Your task to perform on an android device: turn on javascript in the chrome app Image 0: 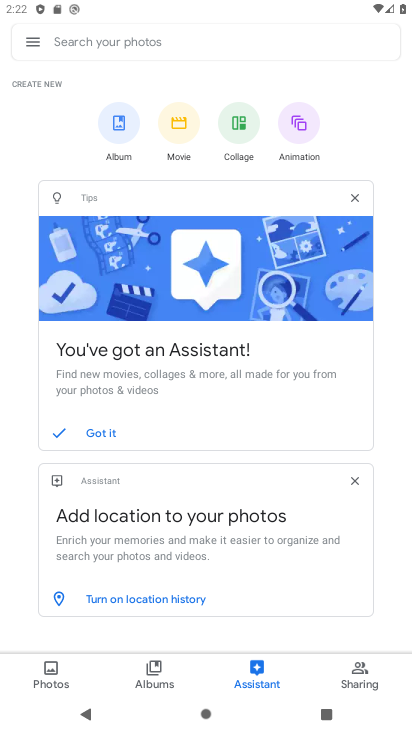
Step 0: press home button
Your task to perform on an android device: turn on javascript in the chrome app Image 1: 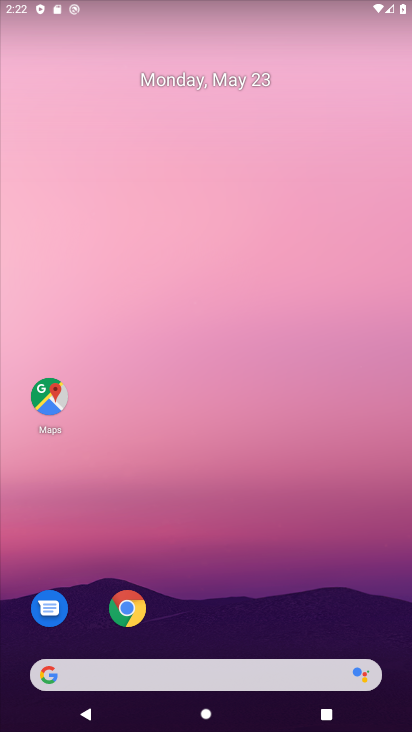
Step 1: click (125, 607)
Your task to perform on an android device: turn on javascript in the chrome app Image 2: 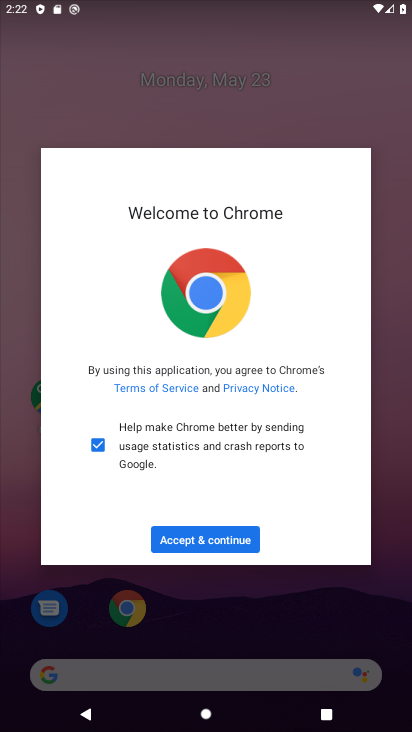
Step 2: click (224, 543)
Your task to perform on an android device: turn on javascript in the chrome app Image 3: 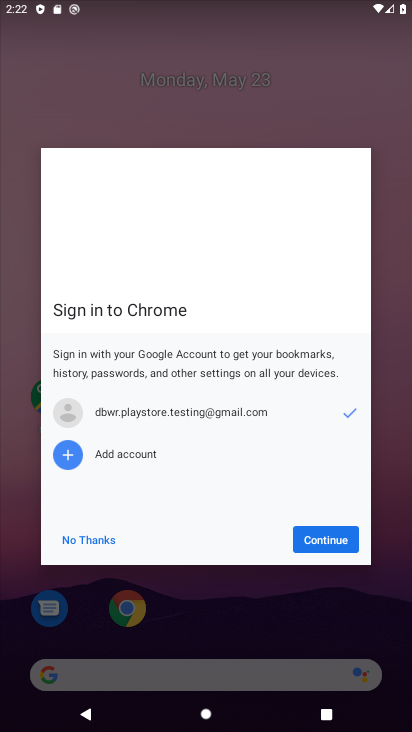
Step 3: click (335, 541)
Your task to perform on an android device: turn on javascript in the chrome app Image 4: 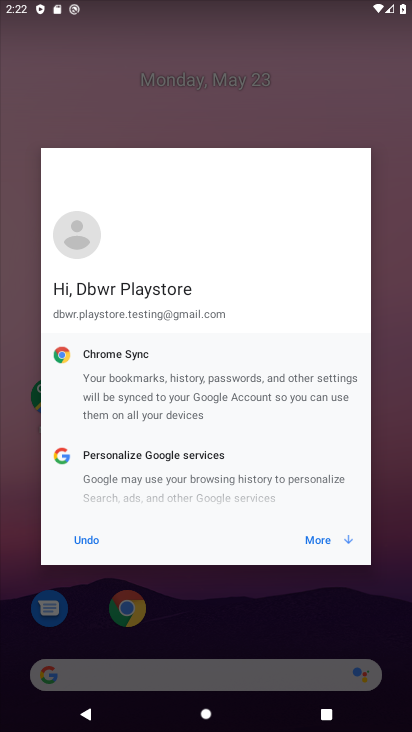
Step 4: click (335, 541)
Your task to perform on an android device: turn on javascript in the chrome app Image 5: 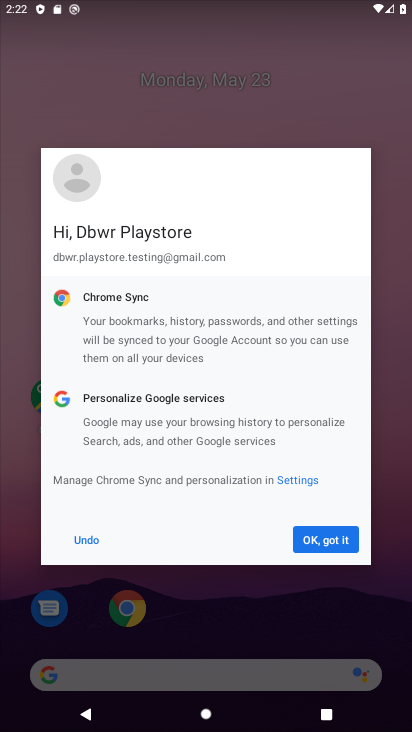
Step 5: click (335, 541)
Your task to perform on an android device: turn on javascript in the chrome app Image 6: 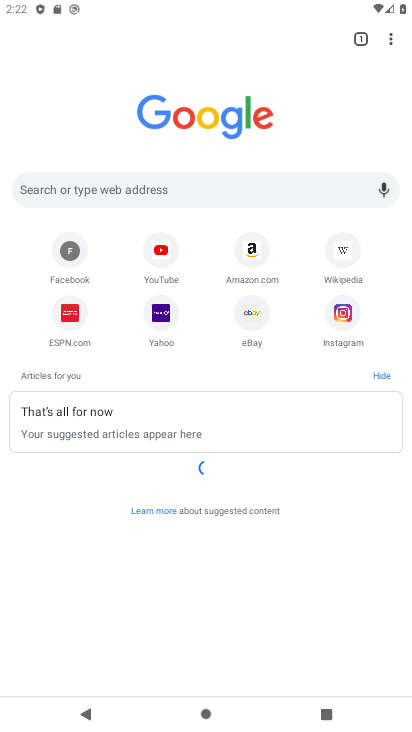
Step 6: click (392, 38)
Your task to perform on an android device: turn on javascript in the chrome app Image 7: 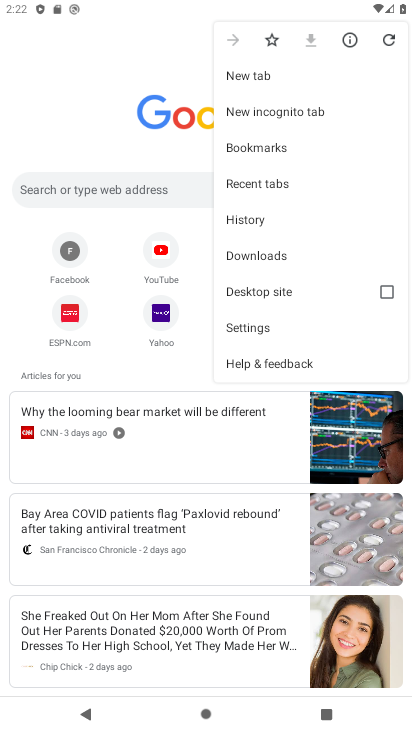
Step 7: click (256, 325)
Your task to perform on an android device: turn on javascript in the chrome app Image 8: 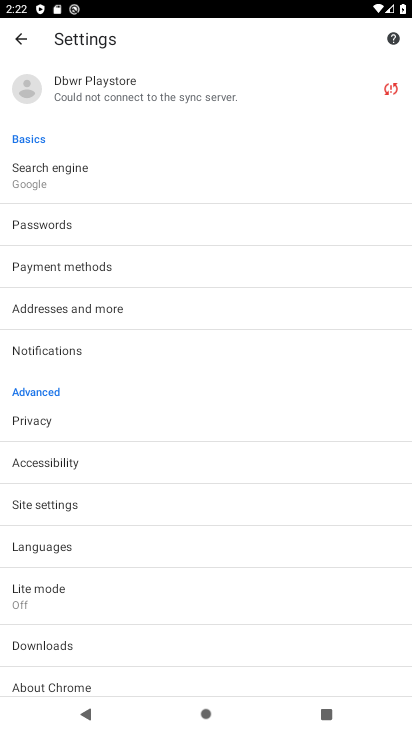
Step 8: click (57, 507)
Your task to perform on an android device: turn on javascript in the chrome app Image 9: 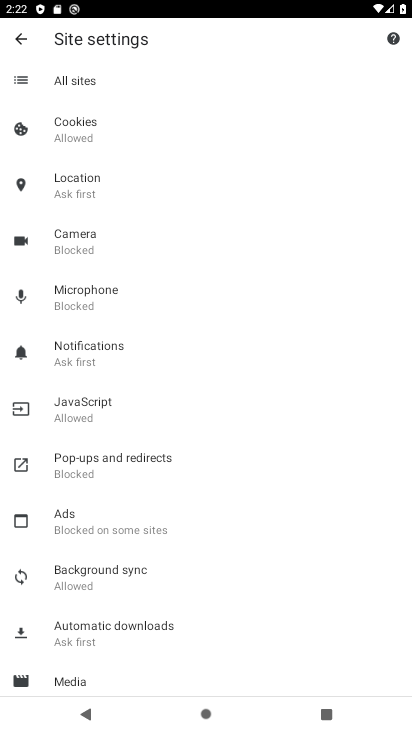
Step 9: click (91, 410)
Your task to perform on an android device: turn on javascript in the chrome app Image 10: 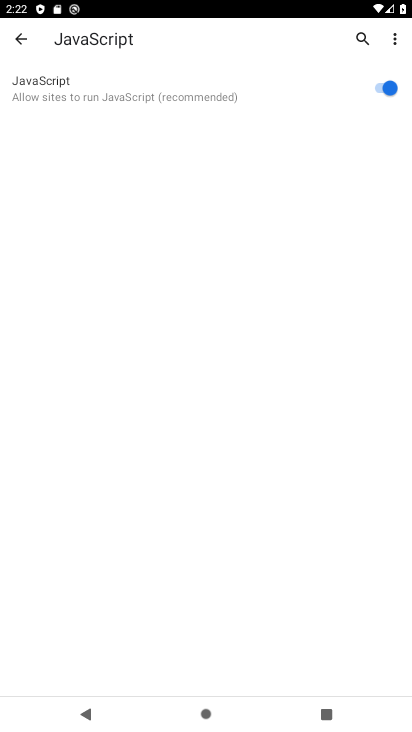
Step 10: task complete